Your task to perform on an android device: Open notification settings Image 0: 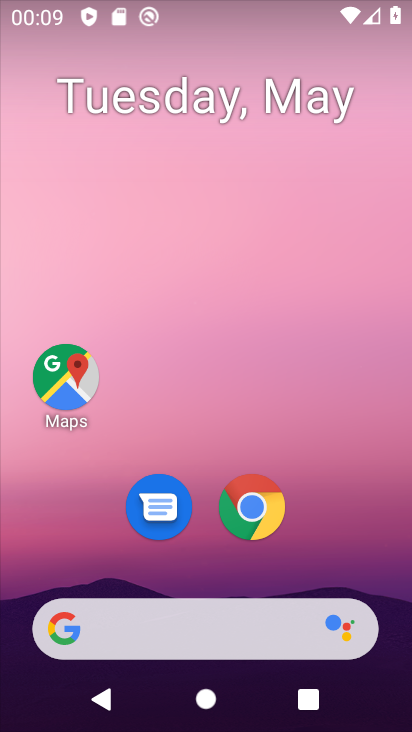
Step 0: drag from (237, 589) to (320, 142)
Your task to perform on an android device: Open notification settings Image 1: 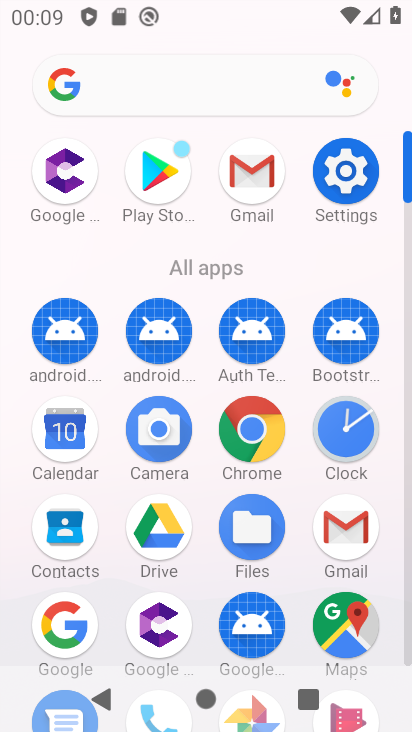
Step 1: click (347, 173)
Your task to perform on an android device: Open notification settings Image 2: 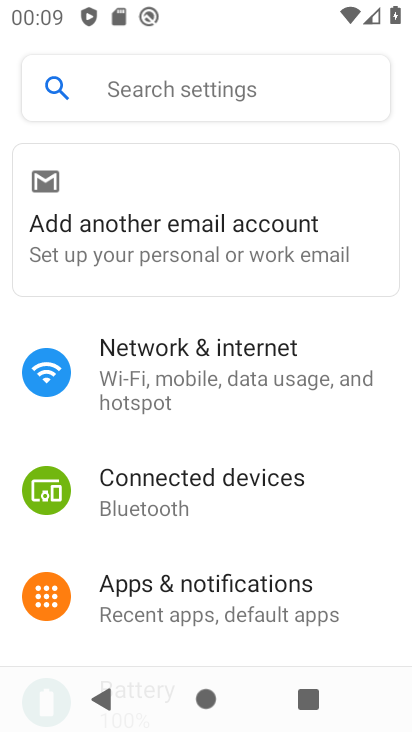
Step 2: click (166, 595)
Your task to perform on an android device: Open notification settings Image 3: 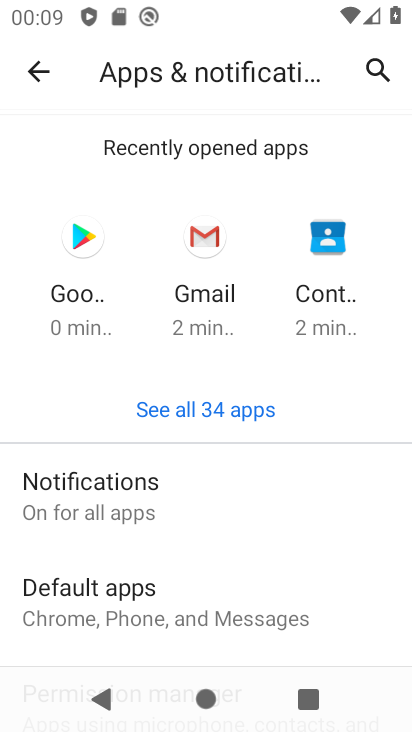
Step 3: drag from (149, 602) to (185, 248)
Your task to perform on an android device: Open notification settings Image 4: 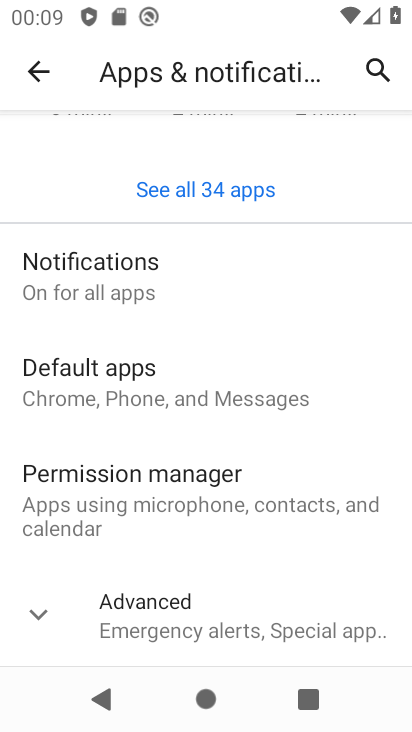
Step 4: click (193, 619)
Your task to perform on an android device: Open notification settings Image 5: 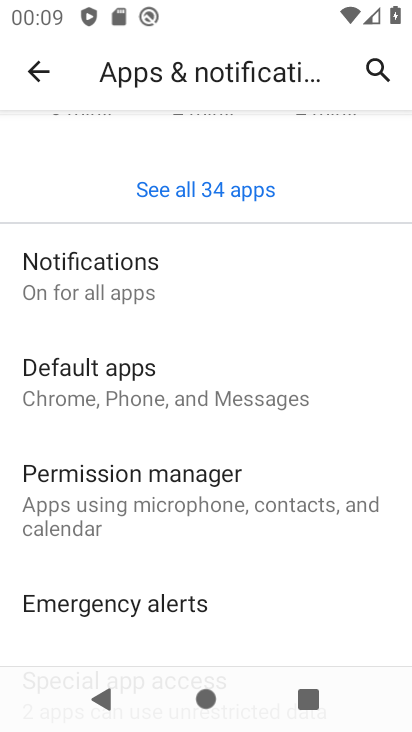
Step 5: task complete